Your task to perform on an android device: What's the weather going to be tomorrow? Image 0: 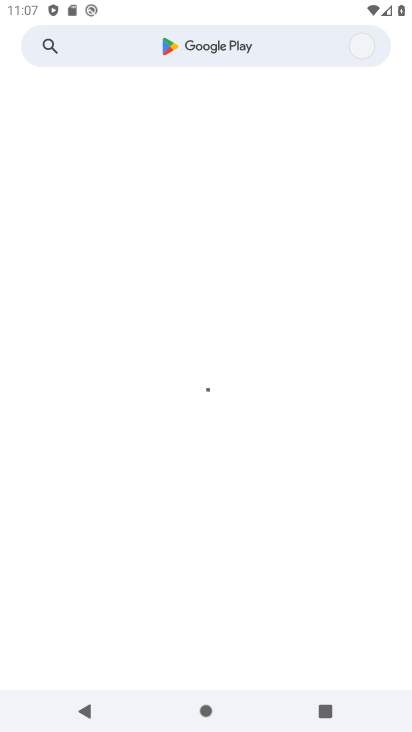
Step 0: press home button
Your task to perform on an android device: What's the weather going to be tomorrow? Image 1: 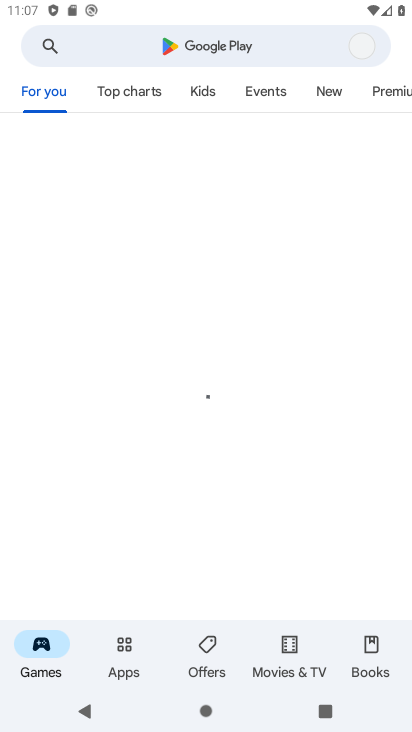
Step 1: drag from (321, 651) to (117, 25)
Your task to perform on an android device: What's the weather going to be tomorrow? Image 2: 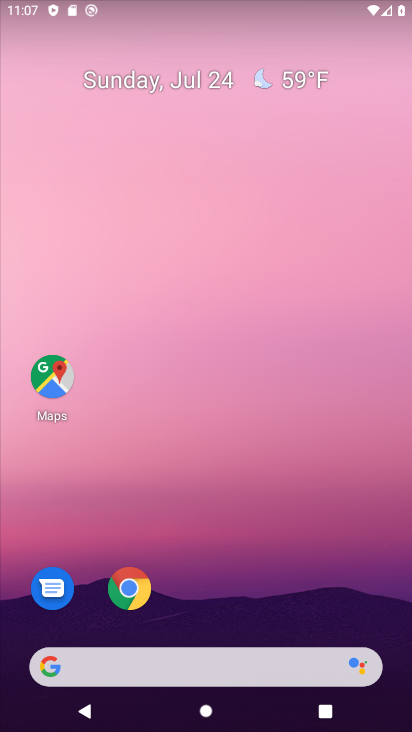
Step 2: drag from (366, 622) to (81, 27)
Your task to perform on an android device: What's the weather going to be tomorrow? Image 3: 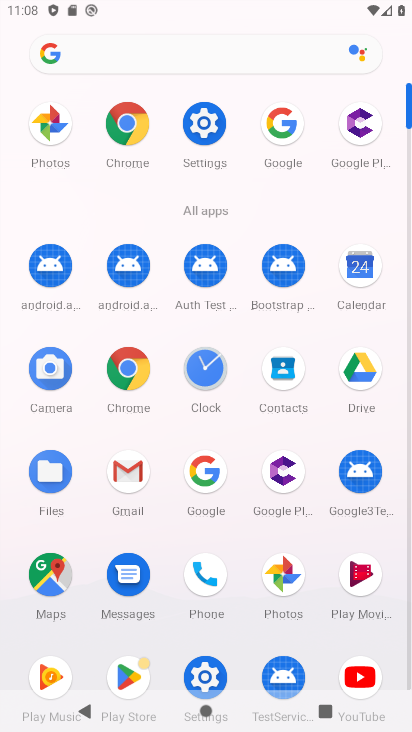
Step 3: click (194, 470)
Your task to perform on an android device: What's the weather going to be tomorrow? Image 4: 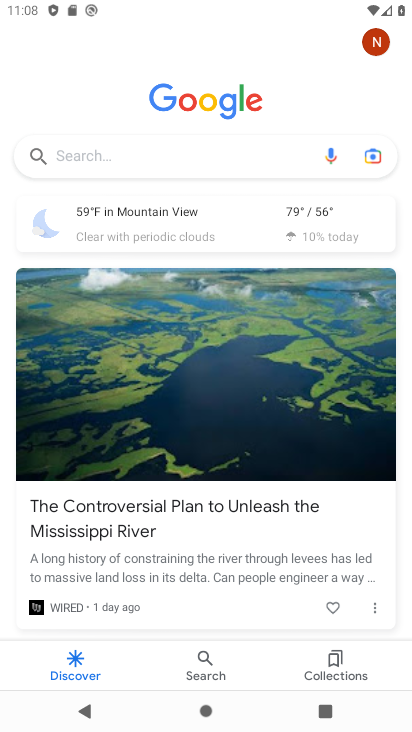
Step 4: click (93, 154)
Your task to perform on an android device: What's the weather going to be tomorrow? Image 5: 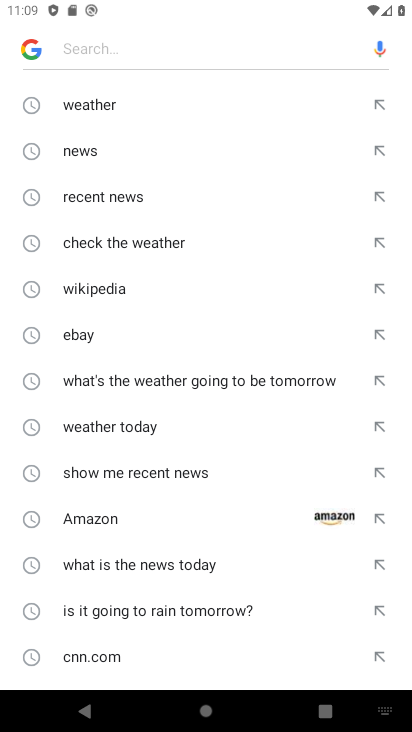
Step 5: click (148, 385)
Your task to perform on an android device: What's the weather going to be tomorrow? Image 6: 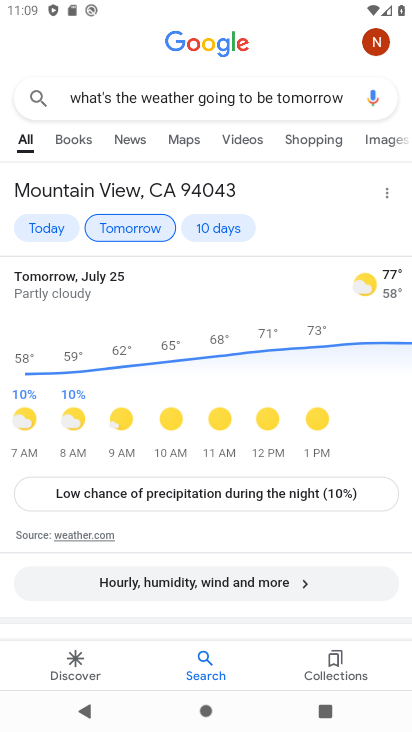
Step 6: task complete